Your task to perform on an android device: Open Google Image 0: 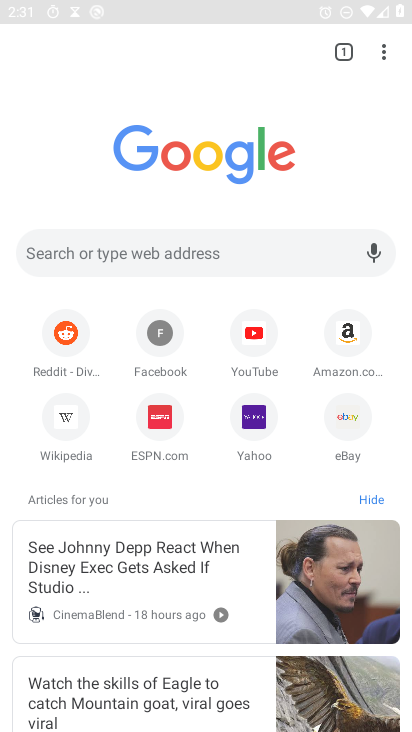
Step 0: drag from (180, 663) to (189, 251)
Your task to perform on an android device: Open Google Image 1: 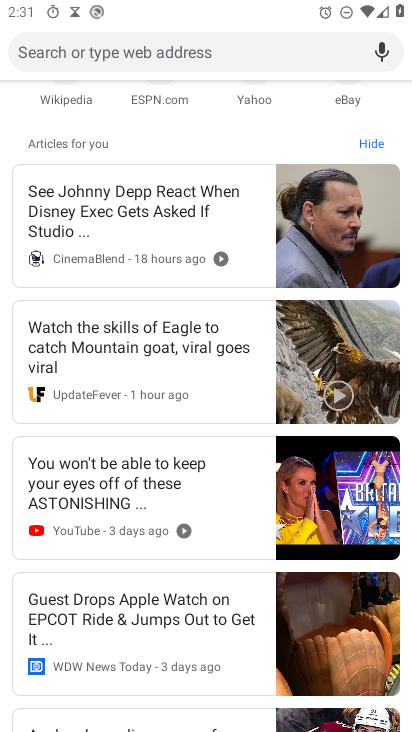
Step 1: press home button
Your task to perform on an android device: Open Google Image 2: 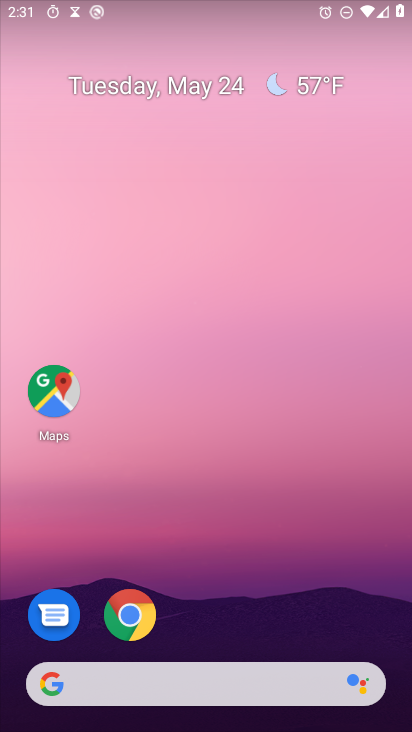
Step 2: drag from (181, 659) to (181, 235)
Your task to perform on an android device: Open Google Image 3: 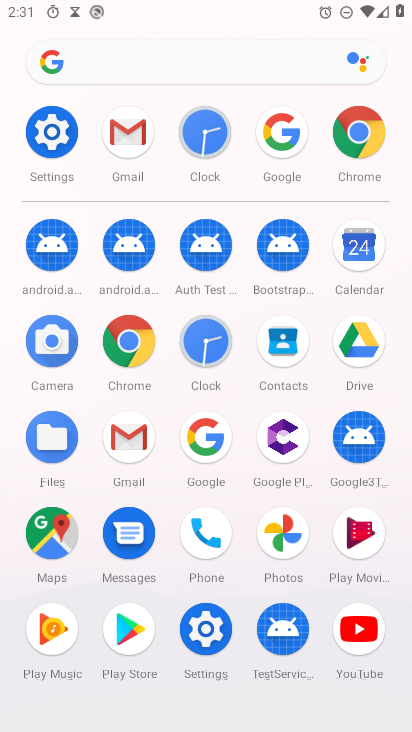
Step 3: click (198, 442)
Your task to perform on an android device: Open Google Image 4: 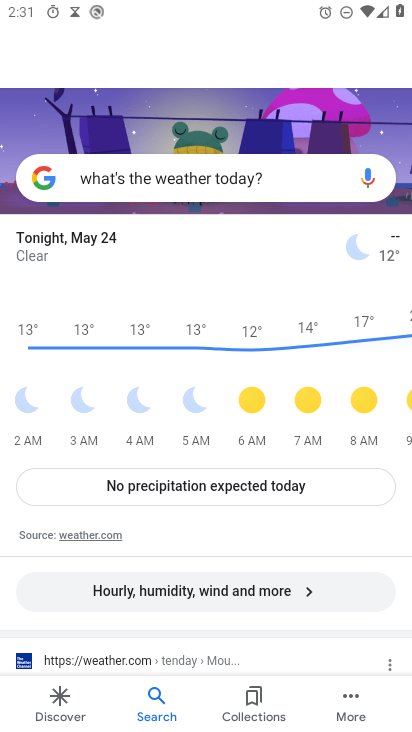
Step 4: task complete